Your task to perform on an android device: Do I have any events tomorrow? Image 0: 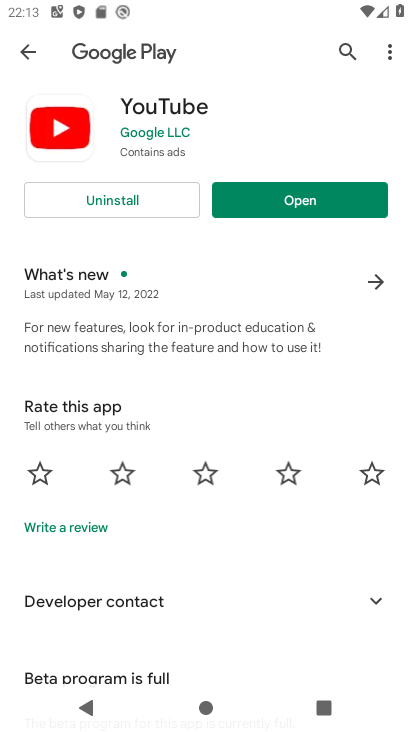
Step 0: press home button
Your task to perform on an android device: Do I have any events tomorrow? Image 1: 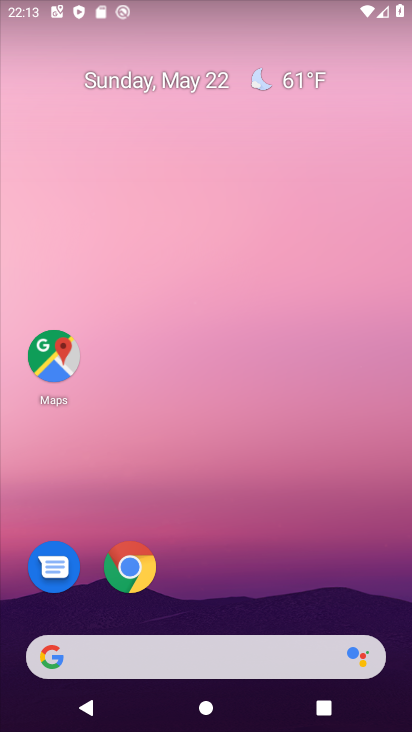
Step 1: click (228, 647)
Your task to perform on an android device: Do I have any events tomorrow? Image 2: 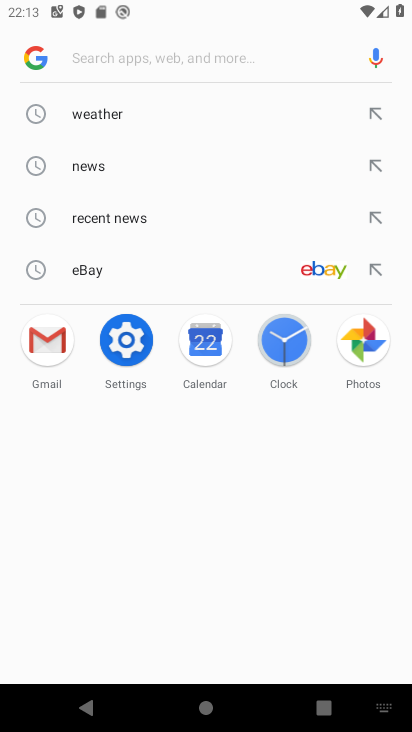
Step 2: press home button
Your task to perform on an android device: Do I have any events tomorrow? Image 3: 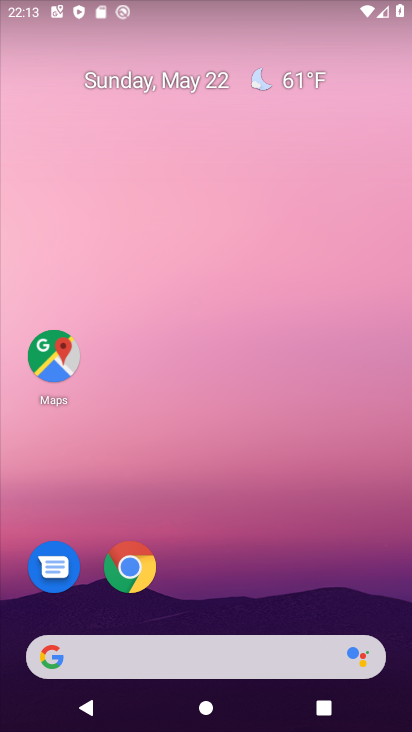
Step 3: drag from (221, 618) to (271, 0)
Your task to perform on an android device: Do I have any events tomorrow? Image 4: 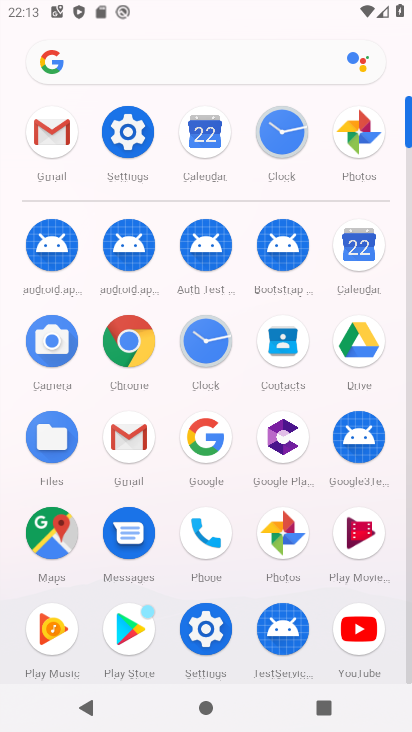
Step 4: click (366, 254)
Your task to perform on an android device: Do I have any events tomorrow? Image 5: 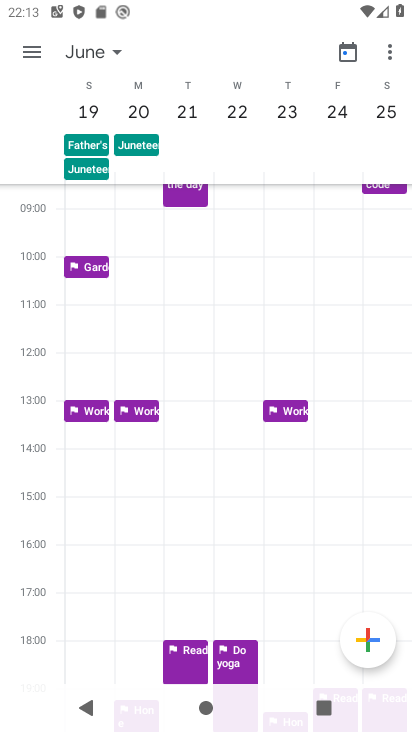
Step 5: click (343, 45)
Your task to perform on an android device: Do I have any events tomorrow? Image 6: 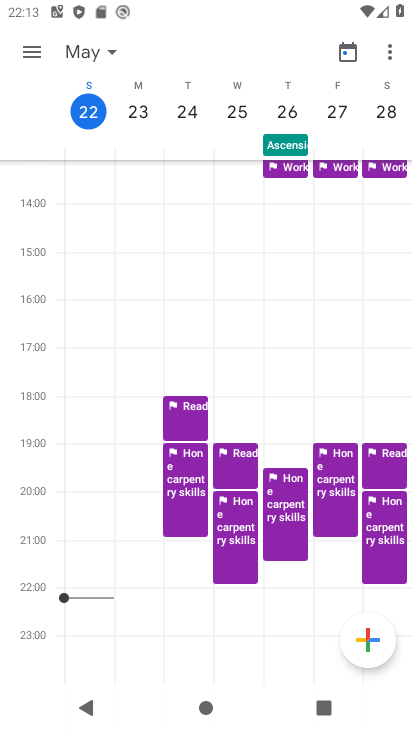
Step 6: click (128, 118)
Your task to perform on an android device: Do I have any events tomorrow? Image 7: 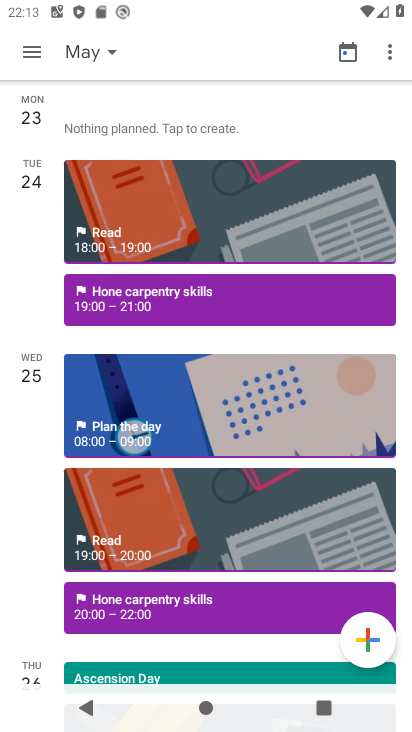
Step 7: task complete